Your task to perform on an android device: Open settings on Google Maps Image 0: 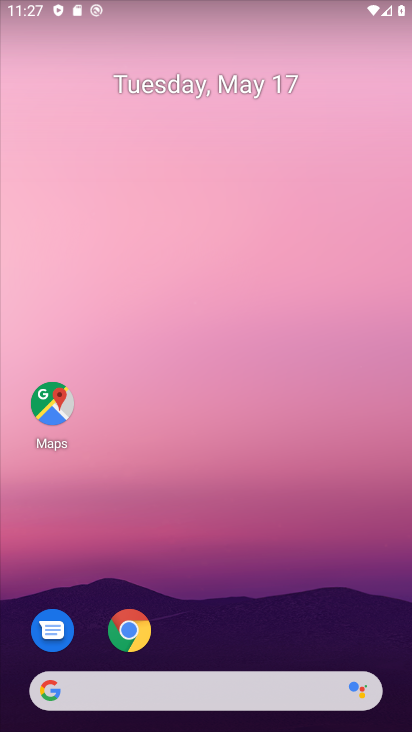
Step 0: click (42, 411)
Your task to perform on an android device: Open settings on Google Maps Image 1: 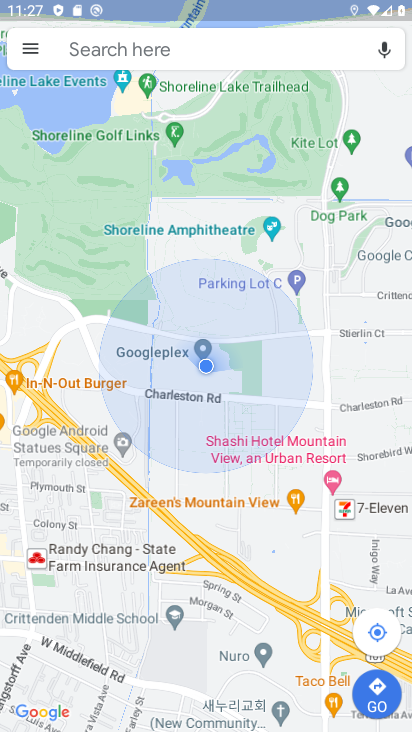
Step 1: task complete